Your task to perform on an android device: Go to Amazon Image 0: 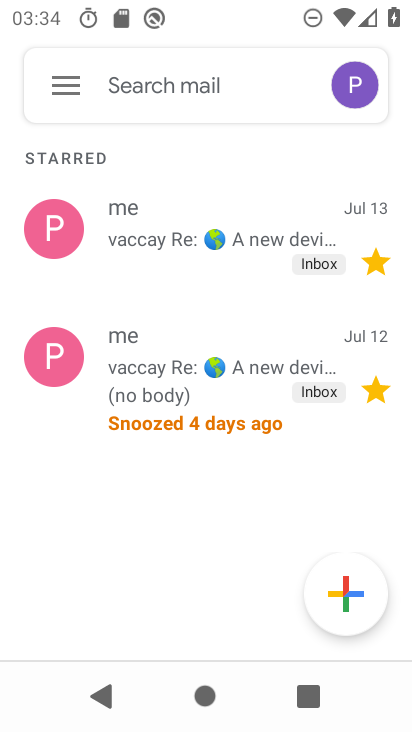
Step 0: press back button
Your task to perform on an android device: Go to Amazon Image 1: 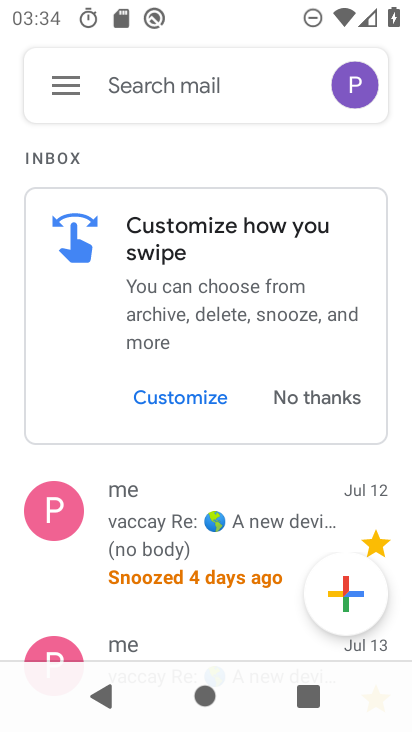
Step 1: press back button
Your task to perform on an android device: Go to Amazon Image 2: 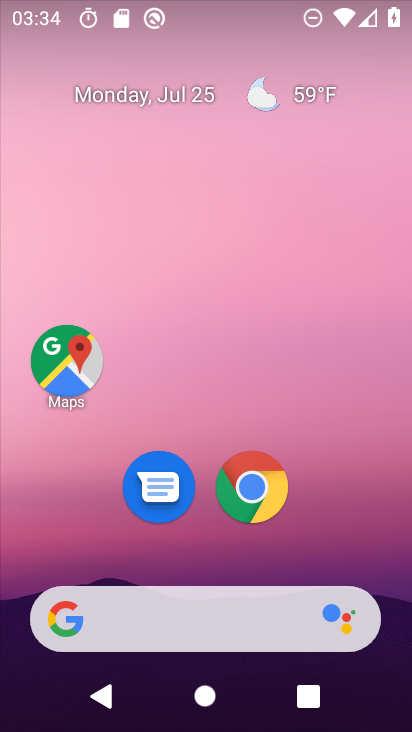
Step 2: click (241, 505)
Your task to perform on an android device: Go to Amazon Image 3: 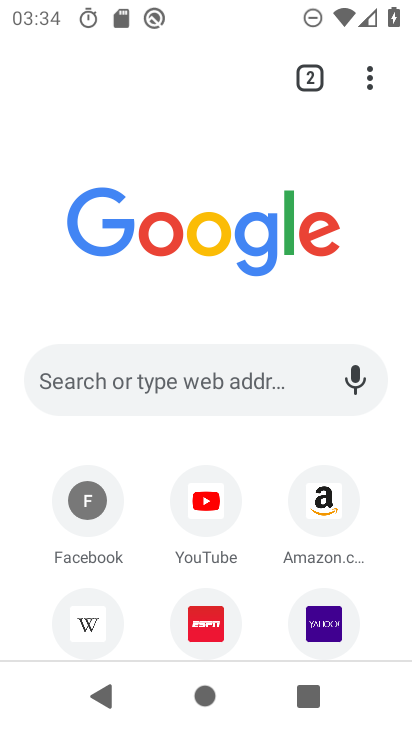
Step 3: click (333, 482)
Your task to perform on an android device: Go to Amazon Image 4: 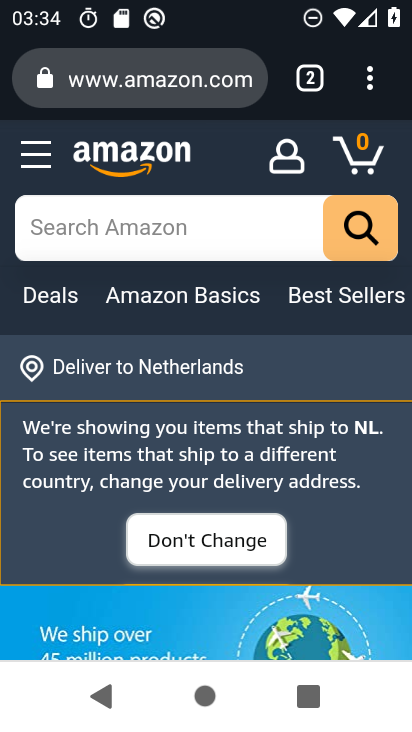
Step 4: task complete